Your task to perform on an android device: Do I have any events today? Image 0: 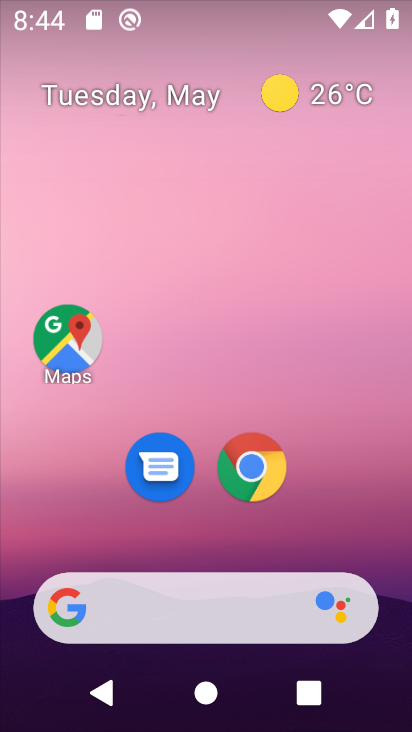
Step 0: click (282, 78)
Your task to perform on an android device: Do I have any events today? Image 1: 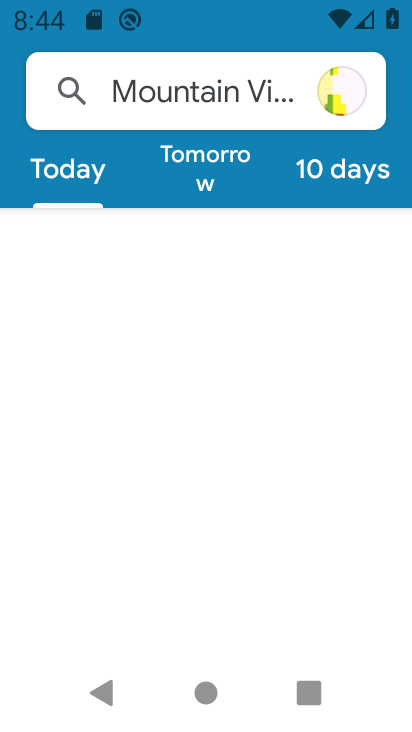
Step 1: press home button
Your task to perform on an android device: Do I have any events today? Image 2: 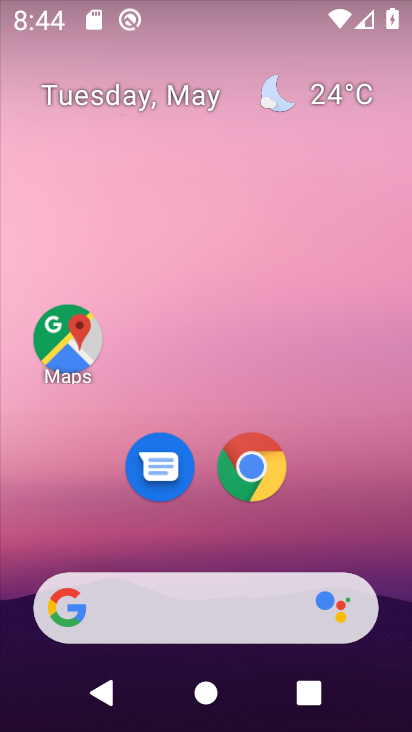
Step 2: drag from (370, 707) to (311, 163)
Your task to perform on an android device: Do I have any events today? Image 3: 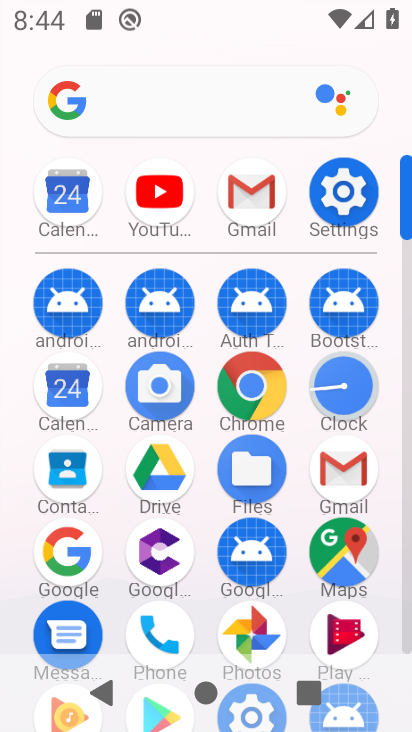
Step 3: click (51, 196)
Your task to perform on an android device: Do I have any events today? Image 4: 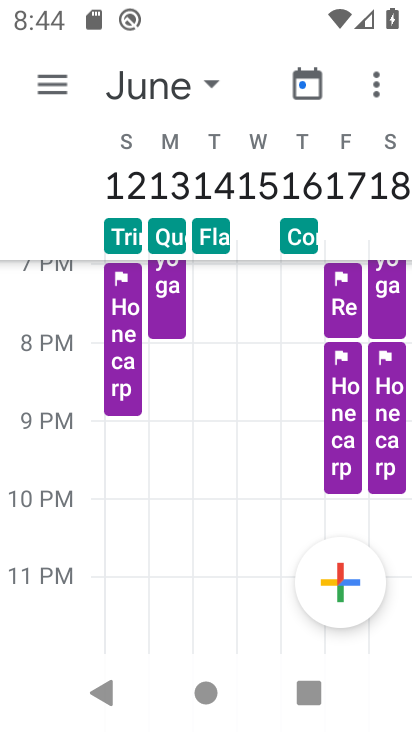
Step 4: click (210, 86)
Your task to perform on an android device: Do I have any events today? Image 5: 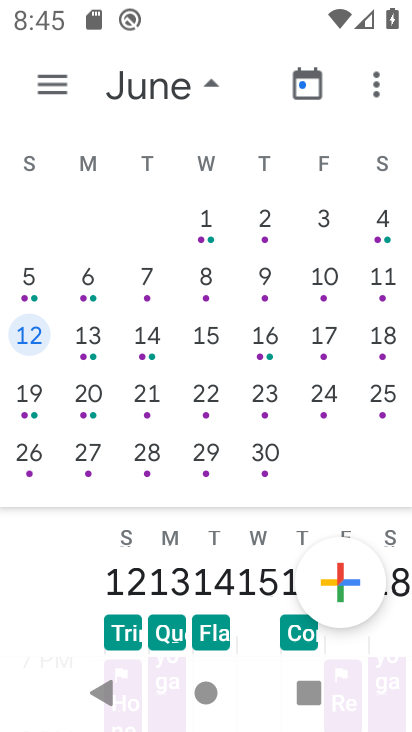
Step 5: drag from (36, 219) to (341, 226)
Your task to perform on an android device: Do I have any events today? Image 6: 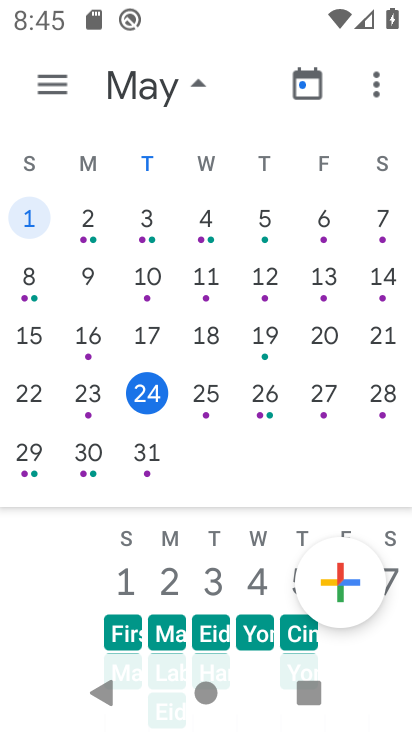
Step 6: click (146, 389)
Your task to perform on an android device: Do I have any events today? Image 7: 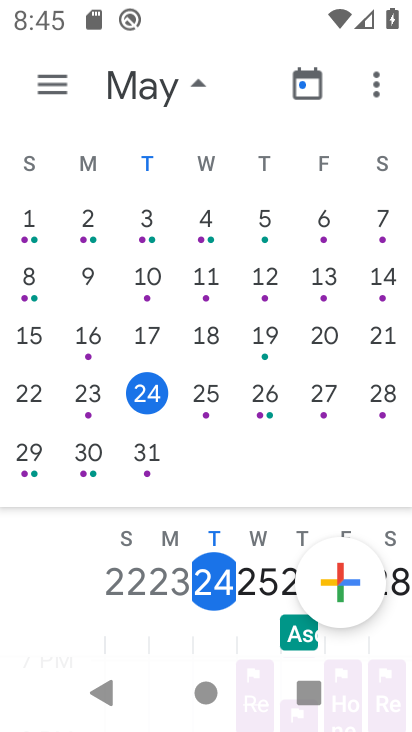
Step 7: click (57, 80)
Your task to perform on an android device: Do I have any events today? Image 8: 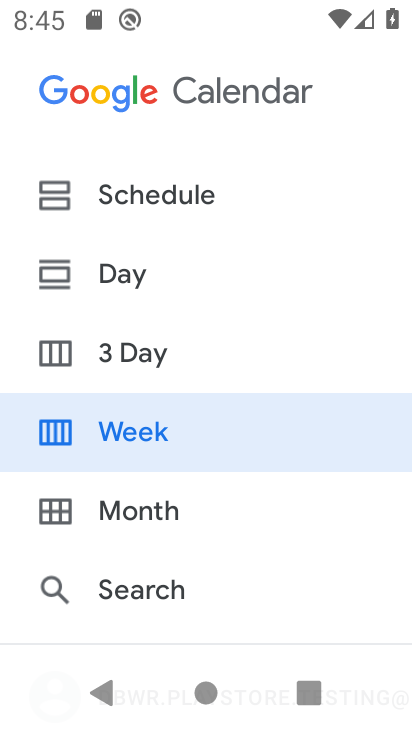
Step 8: click (107, 271)
Your task to perform on an android device: Do I have any events today? Image 9: 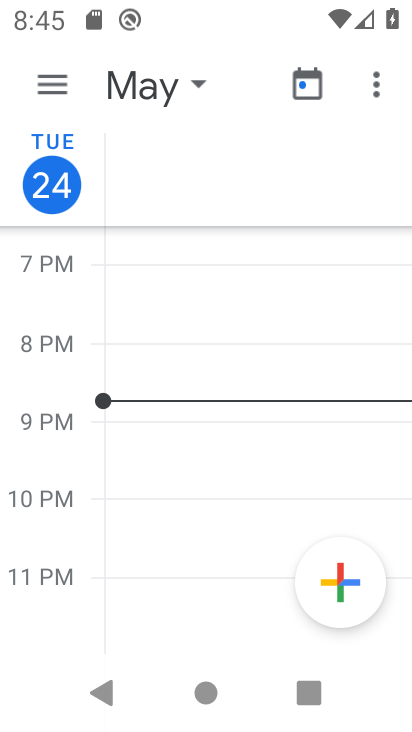
Step 9: click (203, 85)
Your task to perform on an android device: Do I have any events today? Image 10: 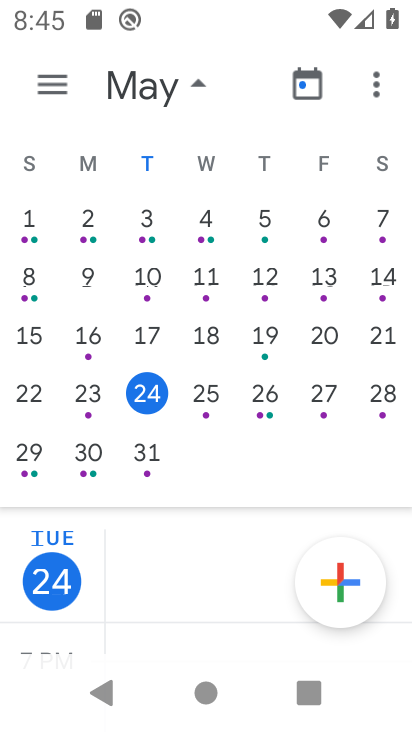
Step 10: click (159, 388)
Your task to perform on an android device: Do I have any events today? Image 11: 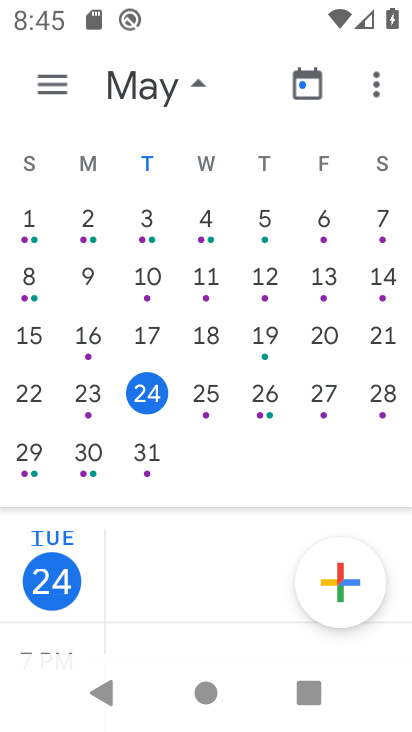
Step 11: task complete